Your task to perform on an android device: toggle sleep mode Image 0: 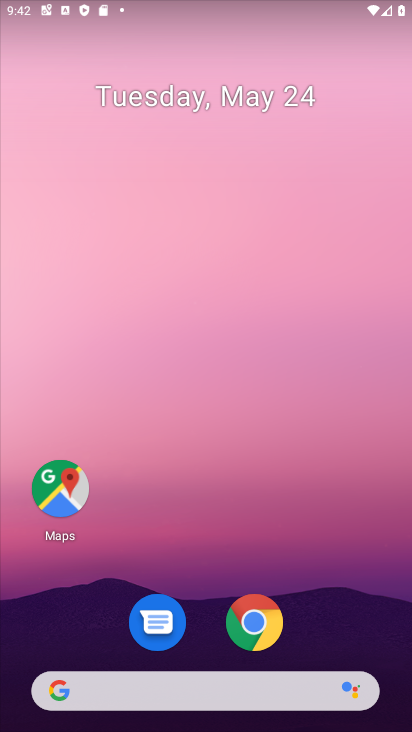
Step 0: drag from (225, 713) to (384, 58)
Your task to perform on an android device: toggle sleep mode Image 1: 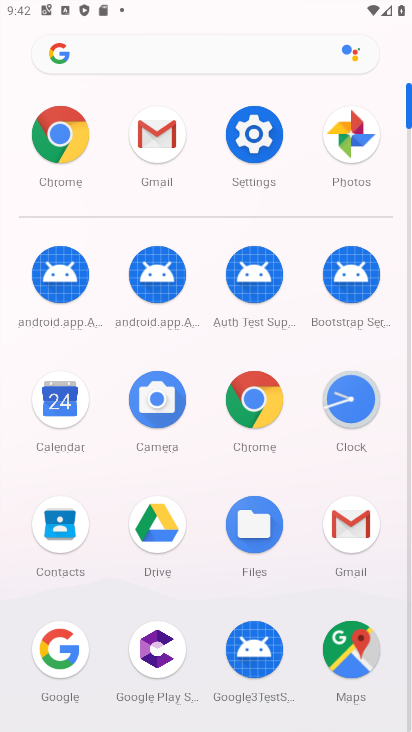
Step 1: click (262, 144)
Your task to perform on an android device: toggle sleep mode Image 2: 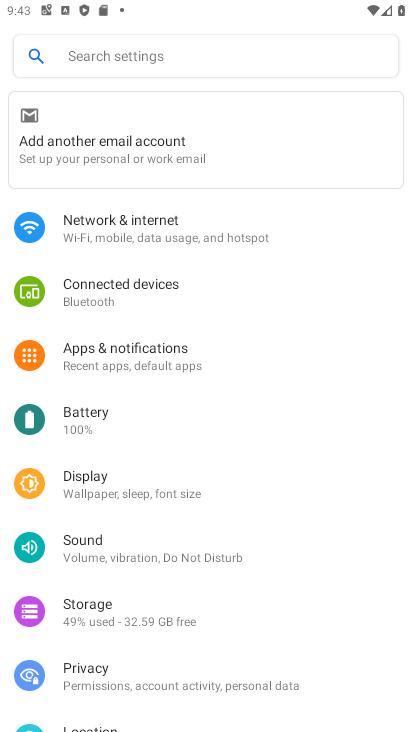
Step 2: click (157, 57)
Your task to perform on an android device: toggle sleep mode Image 3: 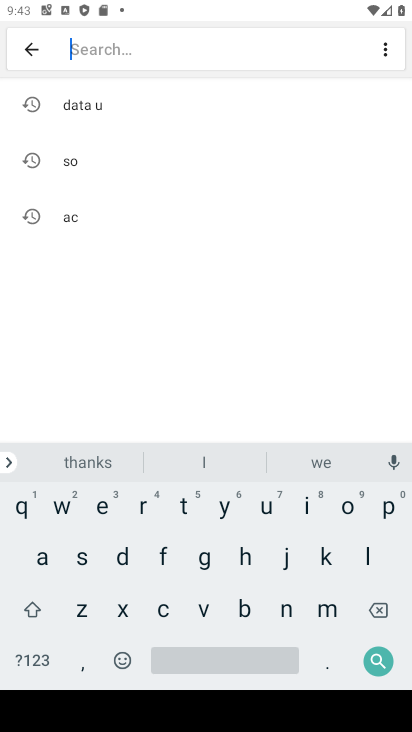
Step 3: click (85, 558)
Your task to perform on an android device: toggle sleep mode Image 4: 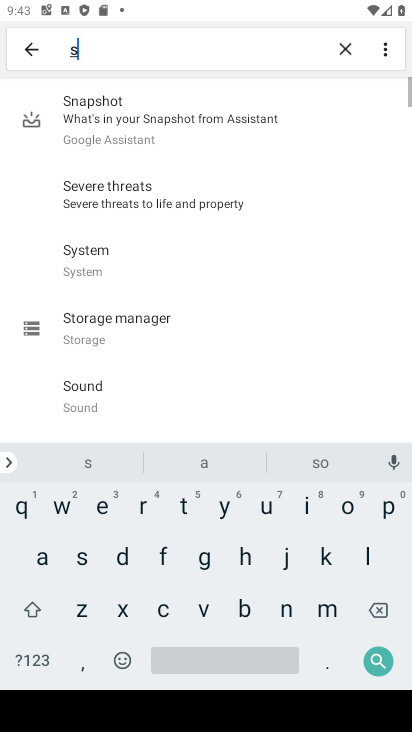
Step 4: click (362, 547)
Your task to perform on an android device: toggle sleep mode Image 5: 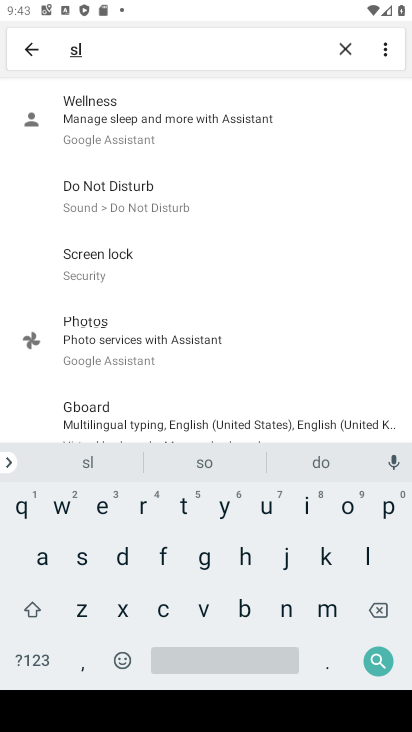
Step 5: click (89, 509)
Your task to perform on an android device: toggle sleep mode Image 6: 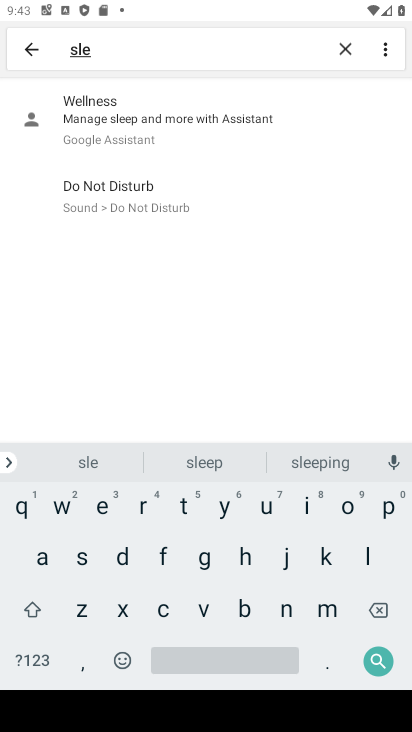
Step 6: click (133, 130)
Your task to perform on an android device: toggle sleep mode Image 7: 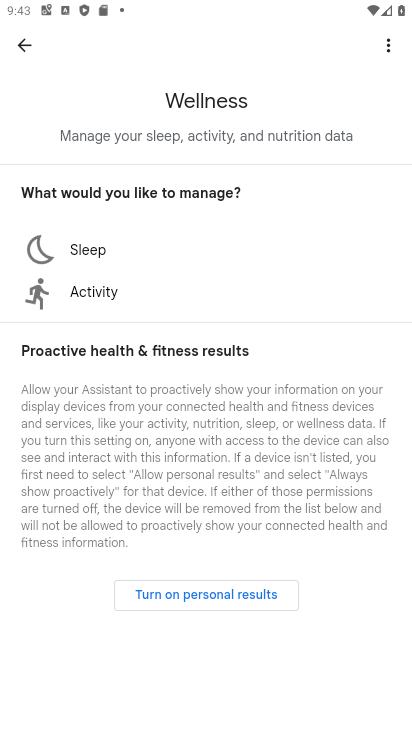
Step 7: click (119, 259)
Your task to perform on an android device: toggle sleep mode Image 8: 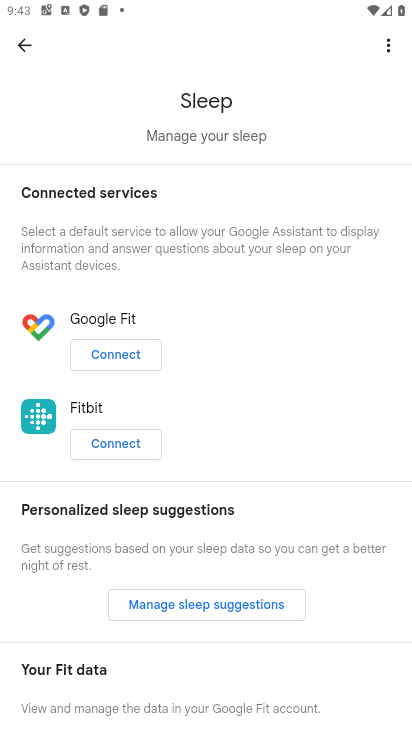
Step 8: task complete